Your task to perform on an android device: turn off picture-in-picture Image 0: 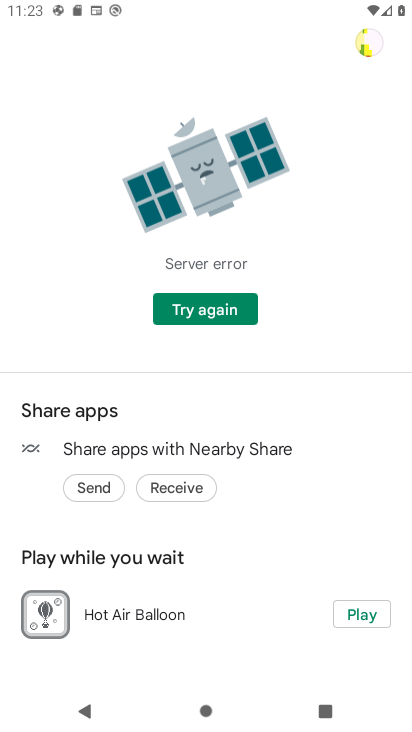
Step 0: press home button
Your task to perform on an android device: turn off picture-in-picture Image 1: 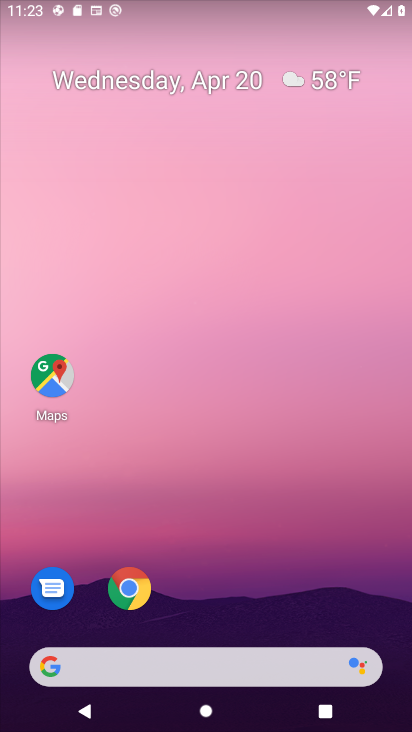
Step 1: drag from (231, 485) to (232, 217)
Your task to perform on an android device: turn off picture-in-picture Image 2: 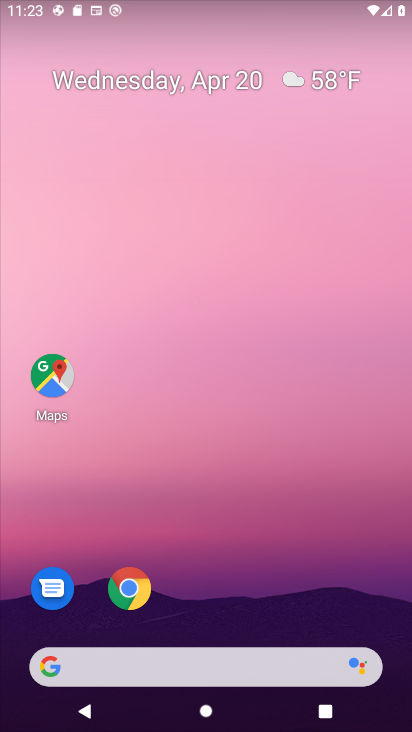
Step 2: drag from (227, 583) to (284, 60)
Your task to perform on an android device: turn off picture-in-picture Image 3: 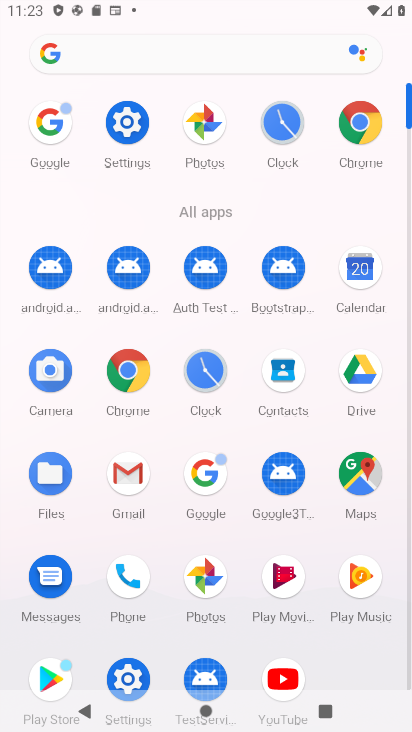
Step 3: click (136, 121)
Your task to perform on an android device: turn off picture-in-picture Image 4: 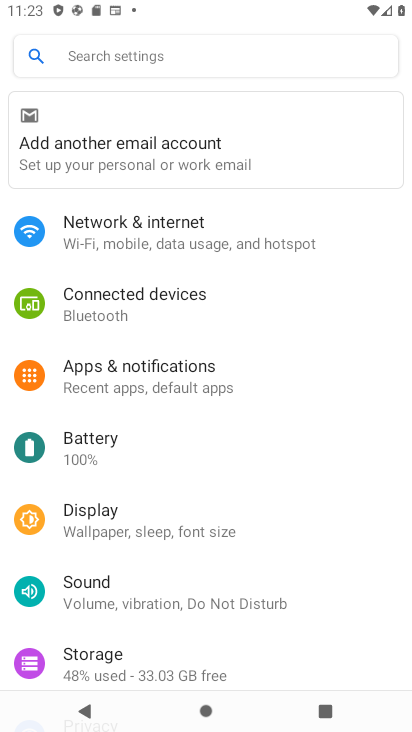
Step 4: click (179, 387)
Your task to perform on an android device: turn off picture-in-picture Image 5: 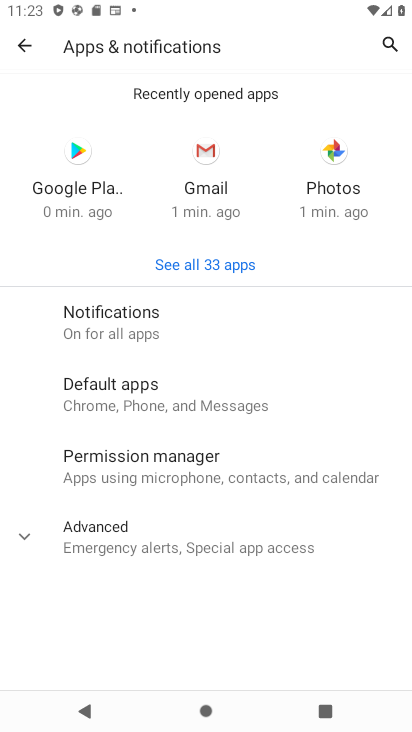
Step 5: click (23, 535)
Your task to perform on an android device: turn off picture-in-picture Image 6: 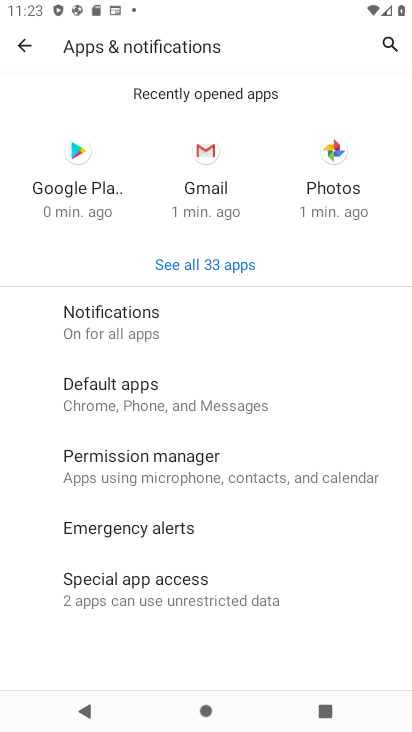
Step 6: click (197, 594)
Your task to perform on an android device: turn off picture-in-picture Image 7: 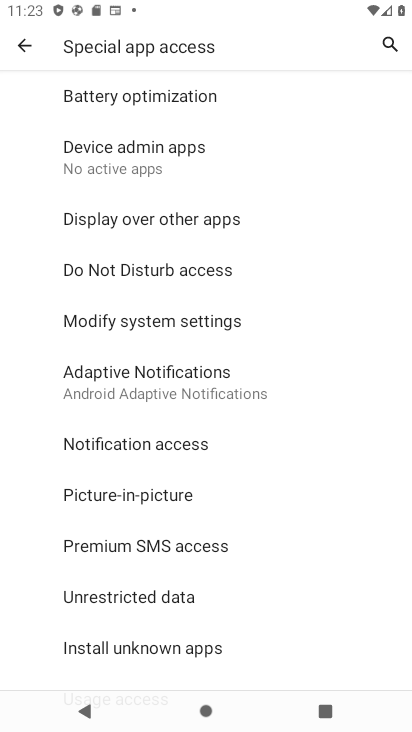
Step 7: click (161, 495)
Your task to perform on an android device: turn off picture-in-picture Image 8: 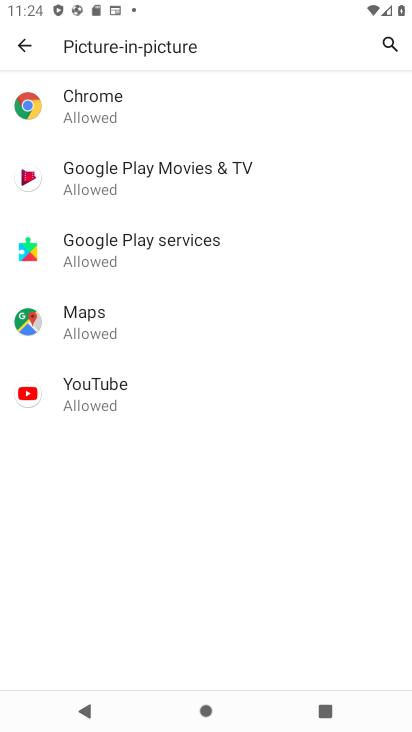
Step 8: click (181, 100)
Your task to perform on an android device: turn off picture-in-picture Image 9: 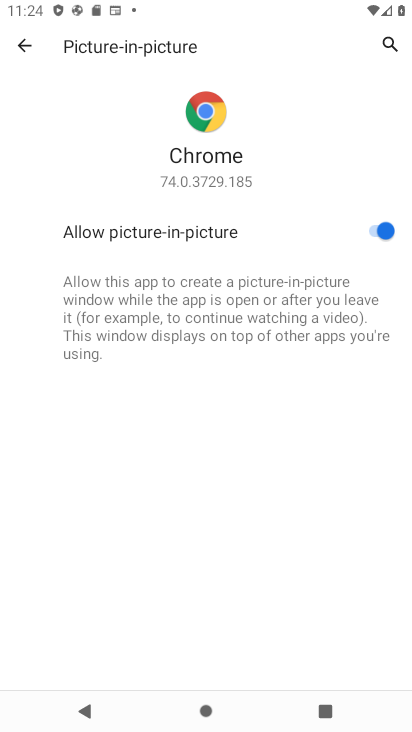
Step 9: click (389, 231)
Your task to perform on an android device: turn off picture-in-picture Image 10: 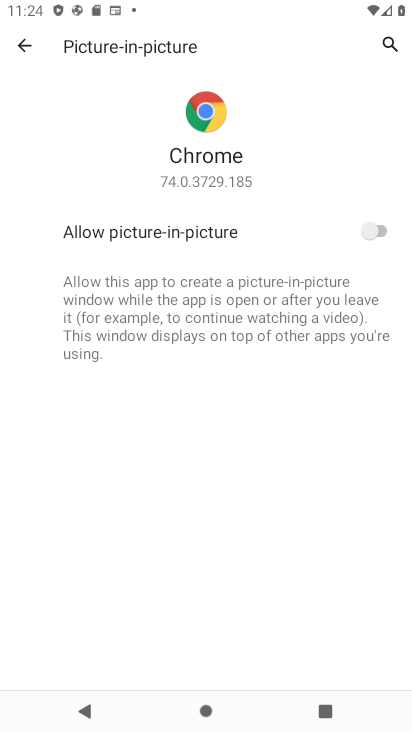
Step 10: task complete